Your task to perform on an android device: How much does a 3 bedroom apartment rent for in Seattle? Image 0: 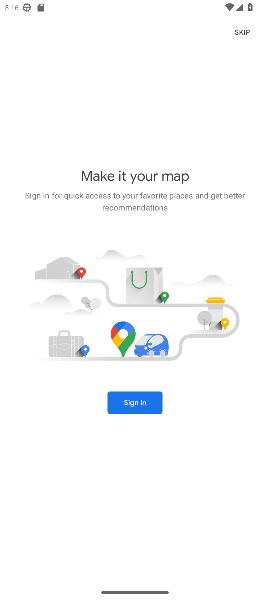
Step 0: press home button
Your task to perform on an android device: How much does a 3 bedroom apartment rent for in Seattle? Image 1: 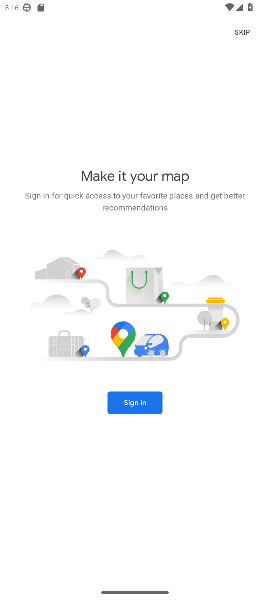
Step 1: press home button
Your task to perform on an android device: How much does a 3 bedroom apartment rent for in Seattle? Image 2: 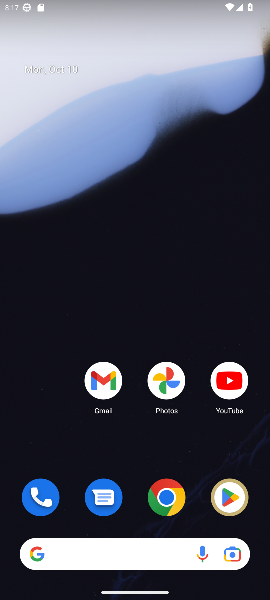
Step 2: drag from (132, 488) to (155, 264)
Your task to perform on an android device: How much does a 3 bedroom apartment rent for in Seattle? Image 3: 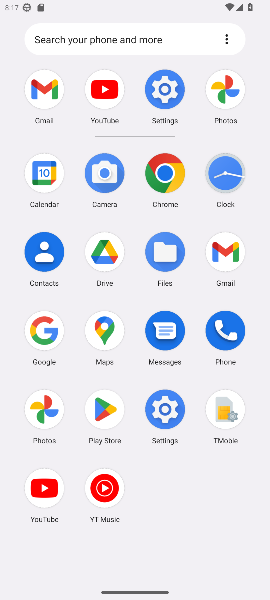
Step 3: click (43, 322)
Your task to perform on an android device: How much does a 3 bedroom apartment rent for in Seattle? Image 4: 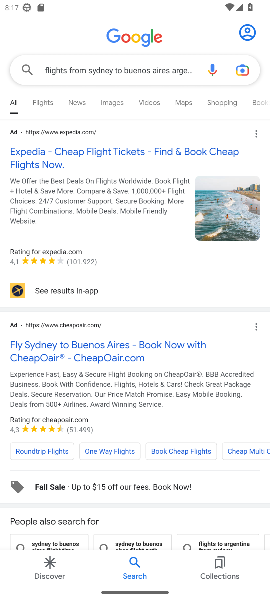
Step 4: click (73, 63)
Your task to perform on an android device: How much does a 3 bedroom apartment rent for in Seattle? Image 5: 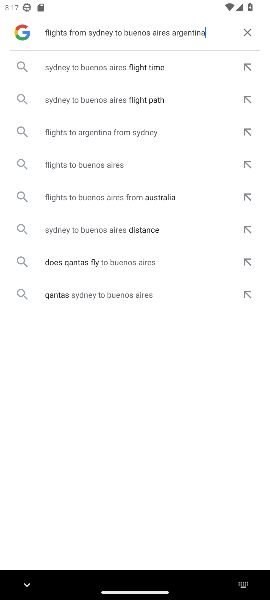
Step 5: click (239, 29)
Your task to perform on an android device: How much does a 3 bedroom apartment rent for in Seattle? Image 6: 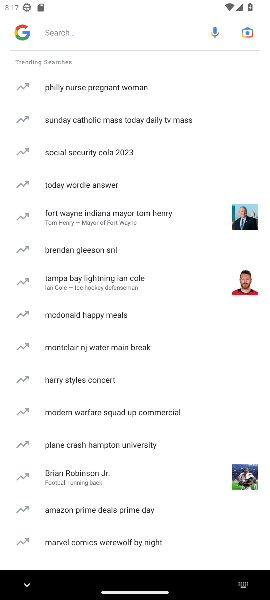
Step 6: click (99, 17)
Your task to perform on an android device: How much does a 3 bedroom apartment rent for in Seattle? Image 7: 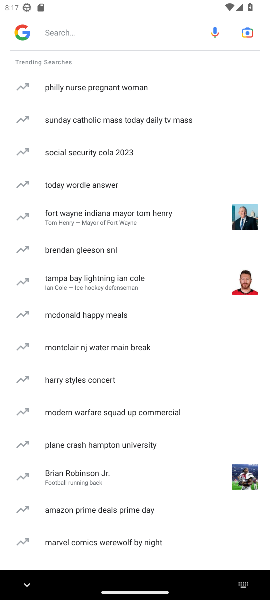
Step 7: type "How much does a 3 bedroom apartment rent for in Seattle? "
Your task to perform on an android device: How much does a 3 bedroom apartment rent for in Seattle? Image 8: 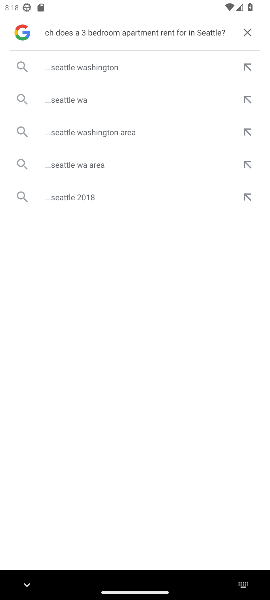
Step 8: click (68, 103)
Your task to perform on an android device: How much does a 3 bedroom apartment rent for in Seattle? Image 9: 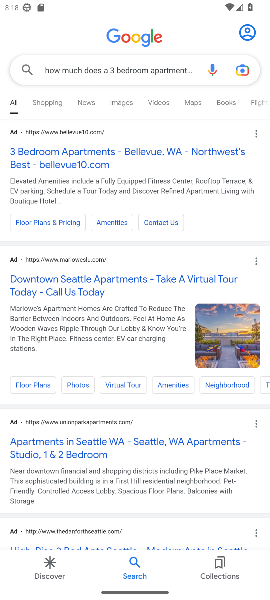
Step 9: click (84, 282)
Your task to perform on an android device: How much does a 3 bedroom apartment rent for in Seattle? Image 10: 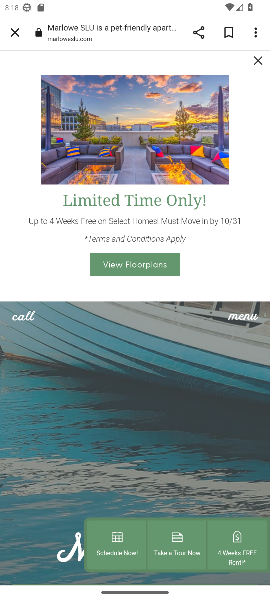
Step 10: click (259, 59)
Your task to perform on an android device: How much does a 3 bedroom apartment rent for in Seattle? Image 11: 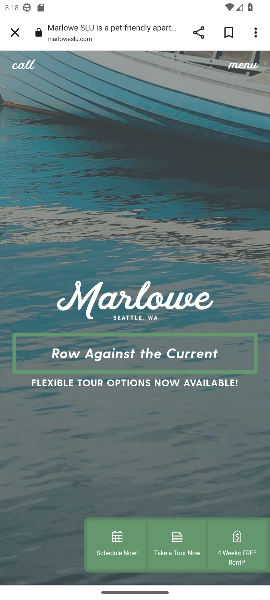
Step 11: drag from (188, 308) to (211, 146)
Your task to perform on an android device: How much does a 3 bedroom apartment rent for in Seattle? Image 12: 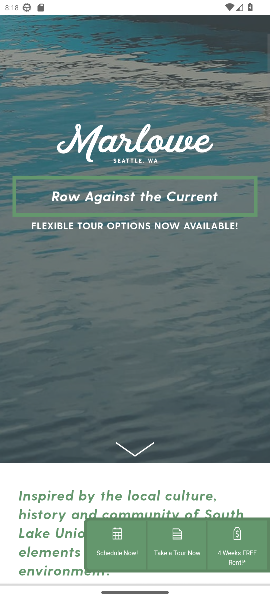
Step 12: drag from (151, 449) to (149, 194)
Your task to perform on an android device: How much does a 3 bedroom apartment rent for in Seattle? Image 13: 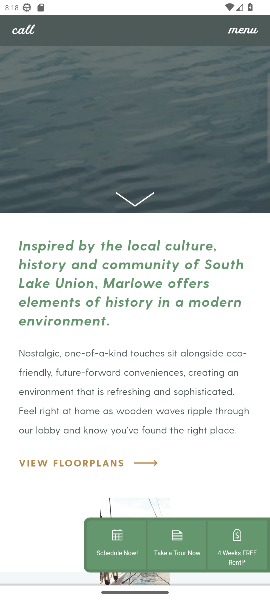
Step 13: drag from (110, 415) to (160, 244)
Your task to perform on an android device: How much does a 3 bedroom apartment rent for in Seattle? Image 14: 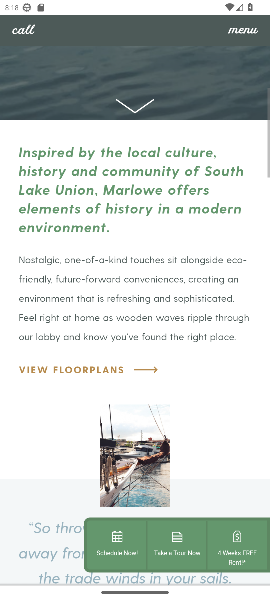
Step 14: drag from (119, 442) to (138, 278)
Your task to perform on an android device: How much does a 3 bedroom apartment rent for in Seattle? Image 15: 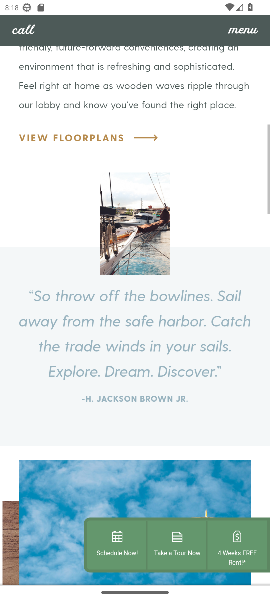
Step 15: drag from (125, 404) to (134, 256)
Your task to perform on an android device: How much does a 3 bedroom apartment rent for in Seattle? Image 16: 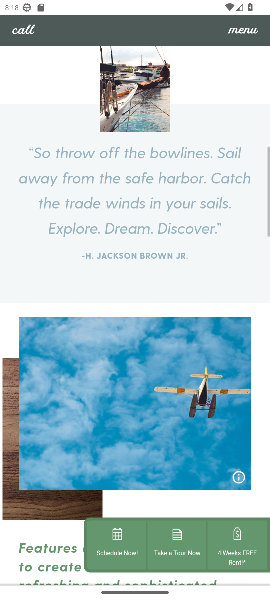
Step 16: drag from (106, 431) to (131, 291)
Your task to perform on an android device: How much does a 3 bedroom apartment rent for in Seattle? Image 17: 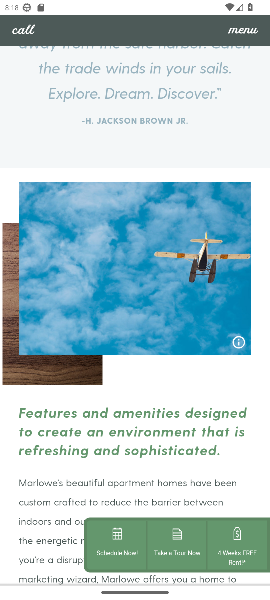
Step 17: press back button
Your task to perform on an android device: How much does a 3 bedroom apartment rent for in Seattle? Image 18: 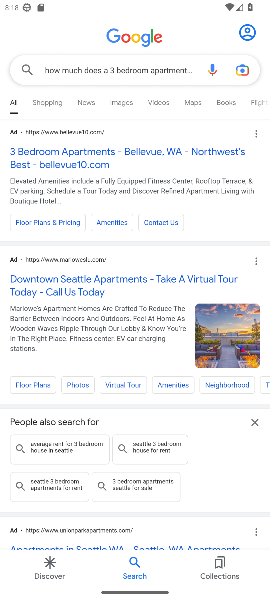
Step 18: click (90, 166)
Your task to perform on an android device: How much does a 3 bedroom apartment rent for in Seattle? Image 19: 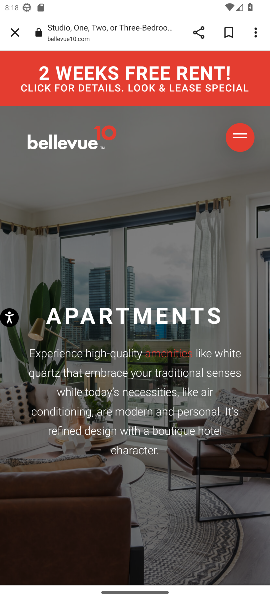
Step 19: task complete